Your task to perform on an android device: star an email in the gmail app Image 0: 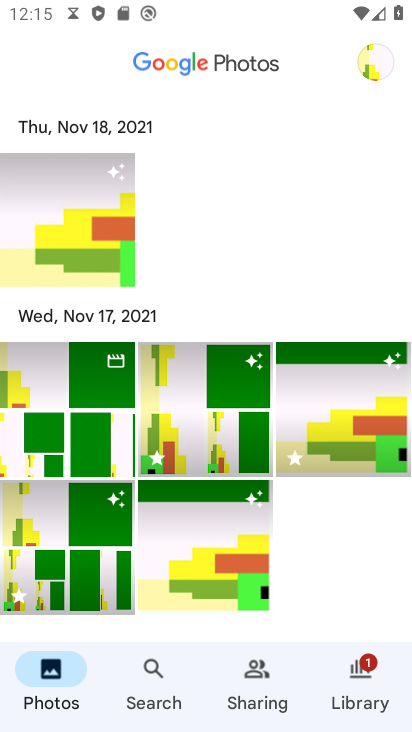
Step 0: press back button
Your task to perform on an android device: star an email in the gmail app Image 1: 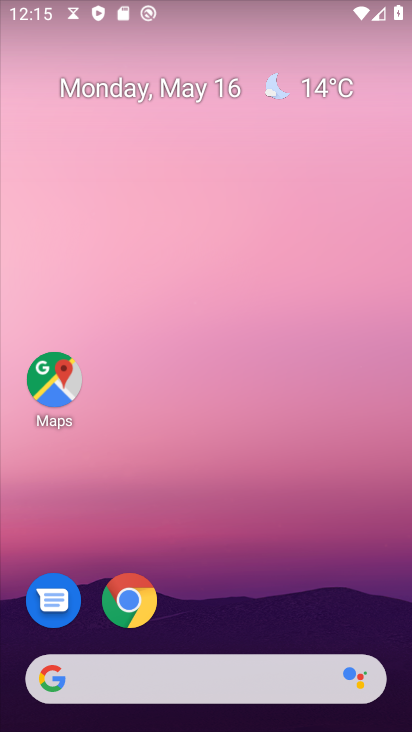
Step 1: drag from (283, 540) to (252, 35)
Your task to perform on an android device: star an email in the gmail app Image 2: 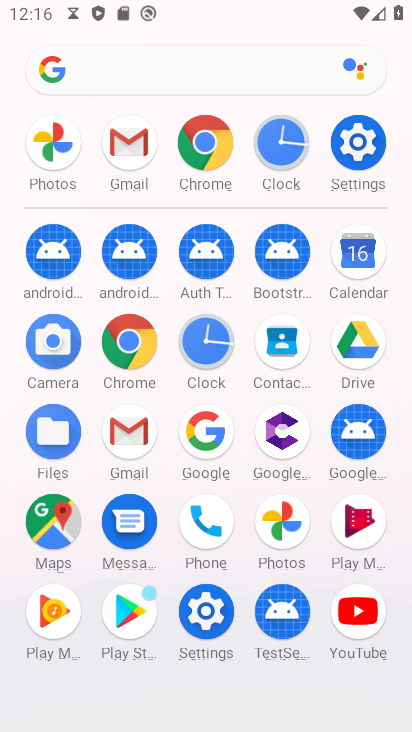
Step 2: click (128, 426)
Your task to perform on an android device: star an email in the gmail app Image 3: 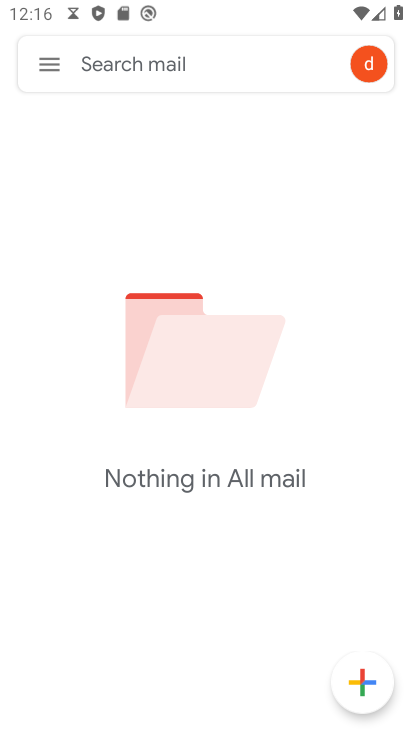
Step 3: click (37, 43)
Your task to perform on an android device: star an email in the gmail app Image 4: 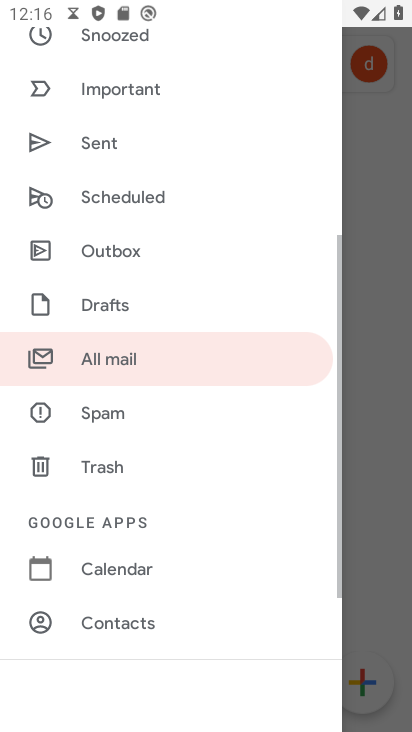
Step 4: click (141, 352)
Your task to perform on an android device: star an email in the gmail app Image 5: 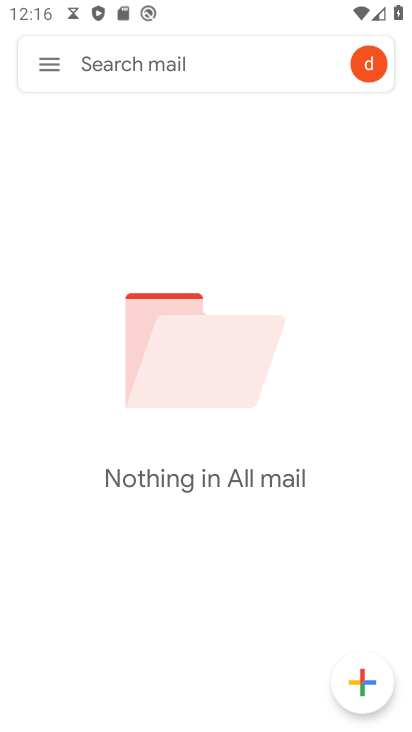
Step 5: click (32, 66)
Your task to perform on an android device: star an email in the gmail app Image 6: 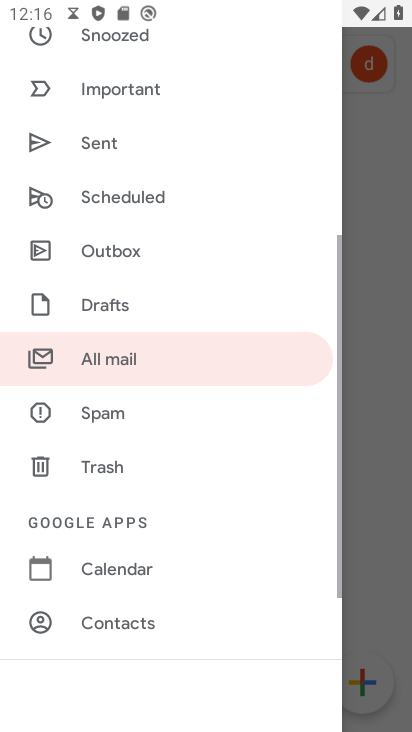
Step 6: drag from (162, 84) to (240, 527)
Your task to perform on an android device: star an email in the gmail app Image 7: 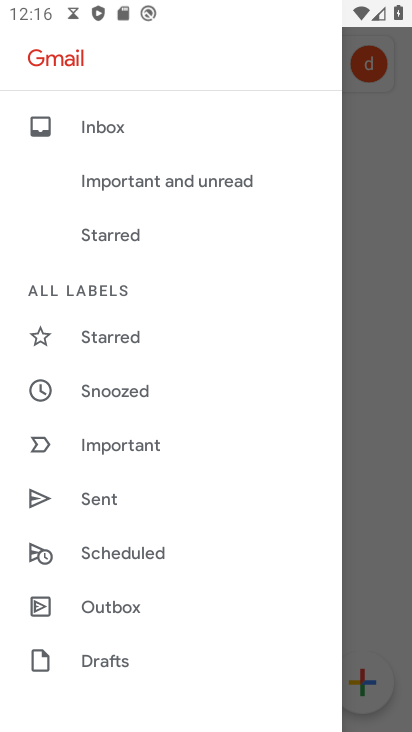
Step 7: click (120, 121)
Your task to perform on an android device: star an email in the gmail app Image 8: 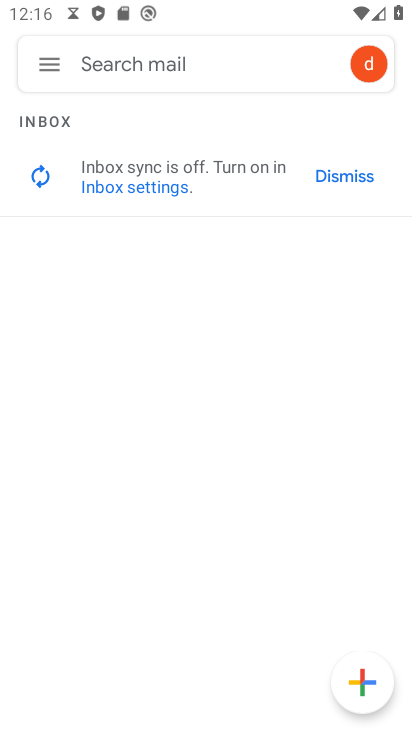
Step 8: task complete